Your task to perform on an android device: turn on javascript in the chrome app Image 0: 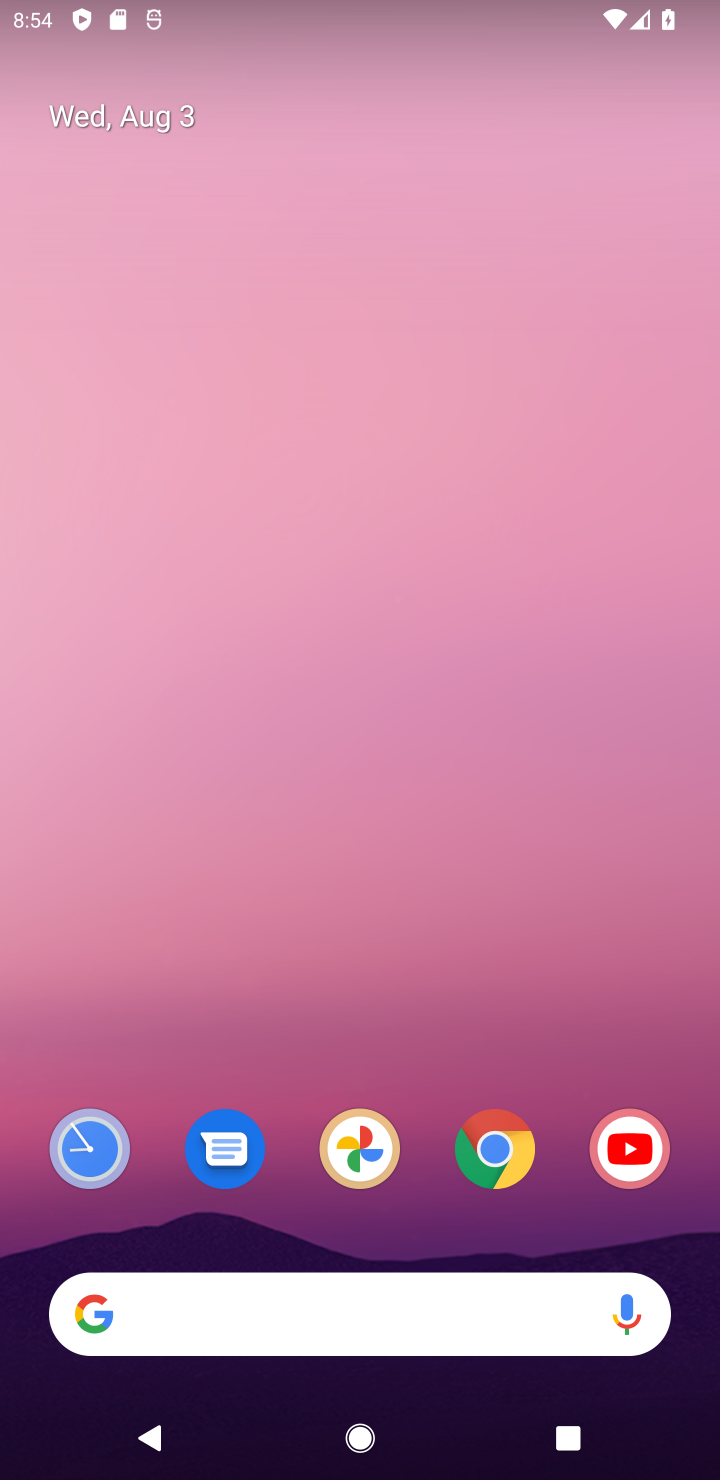
Step 0: click (496, 1137)
Your task to perform on an android device: turn on javascript in the chrome app Image 1: 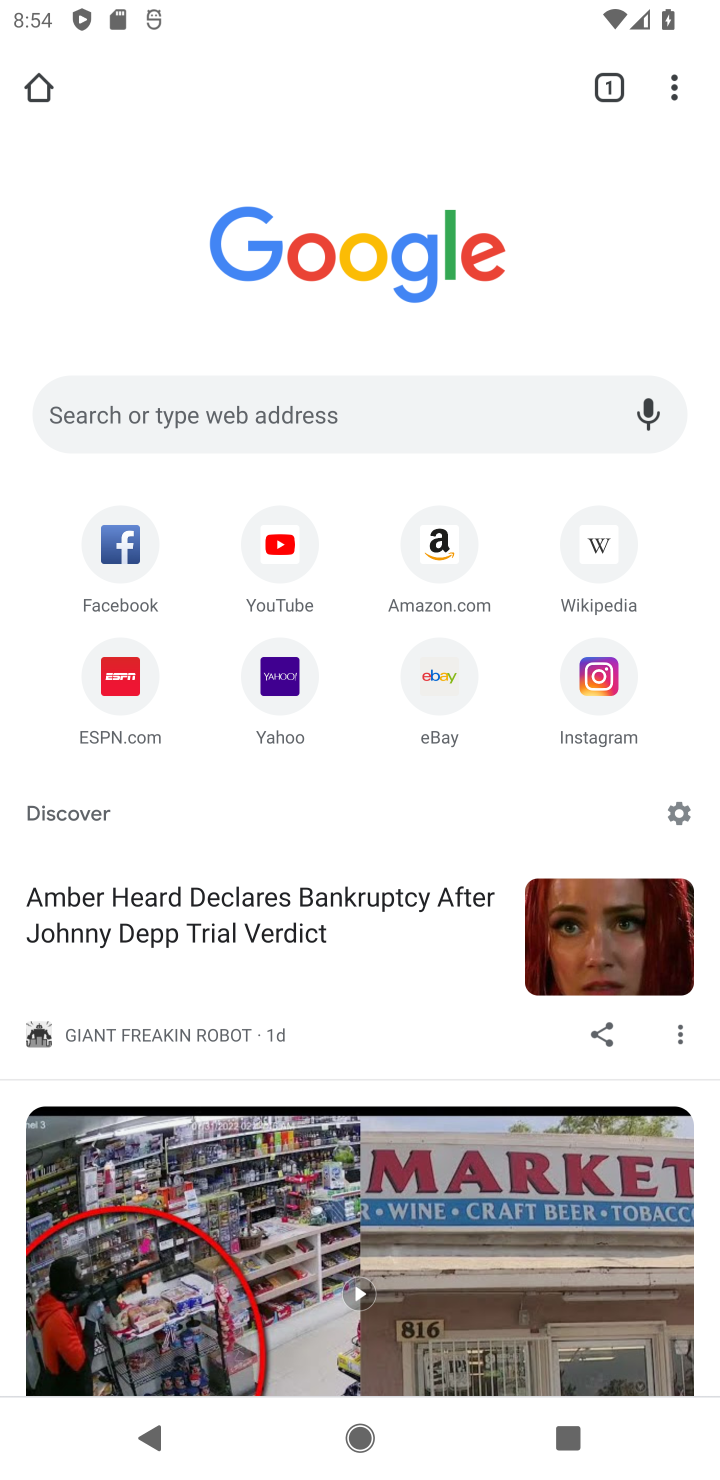
Step 1: click (664, 87)
Your task to perform on an android device: turn on javascript in the chrome app Image 2: 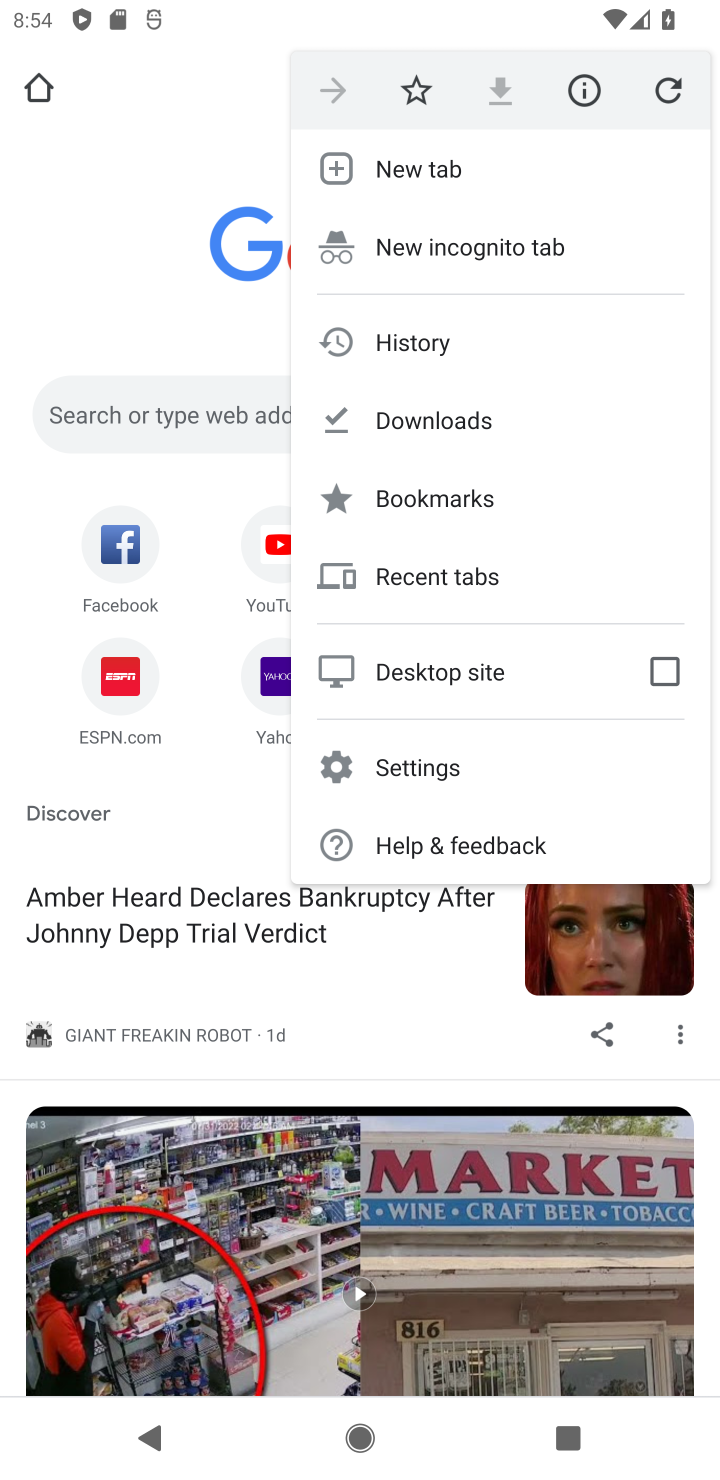
Step 2: click (459, 760)
Your task to perform on an android device: turn on javascript in the chrome app Image 3: 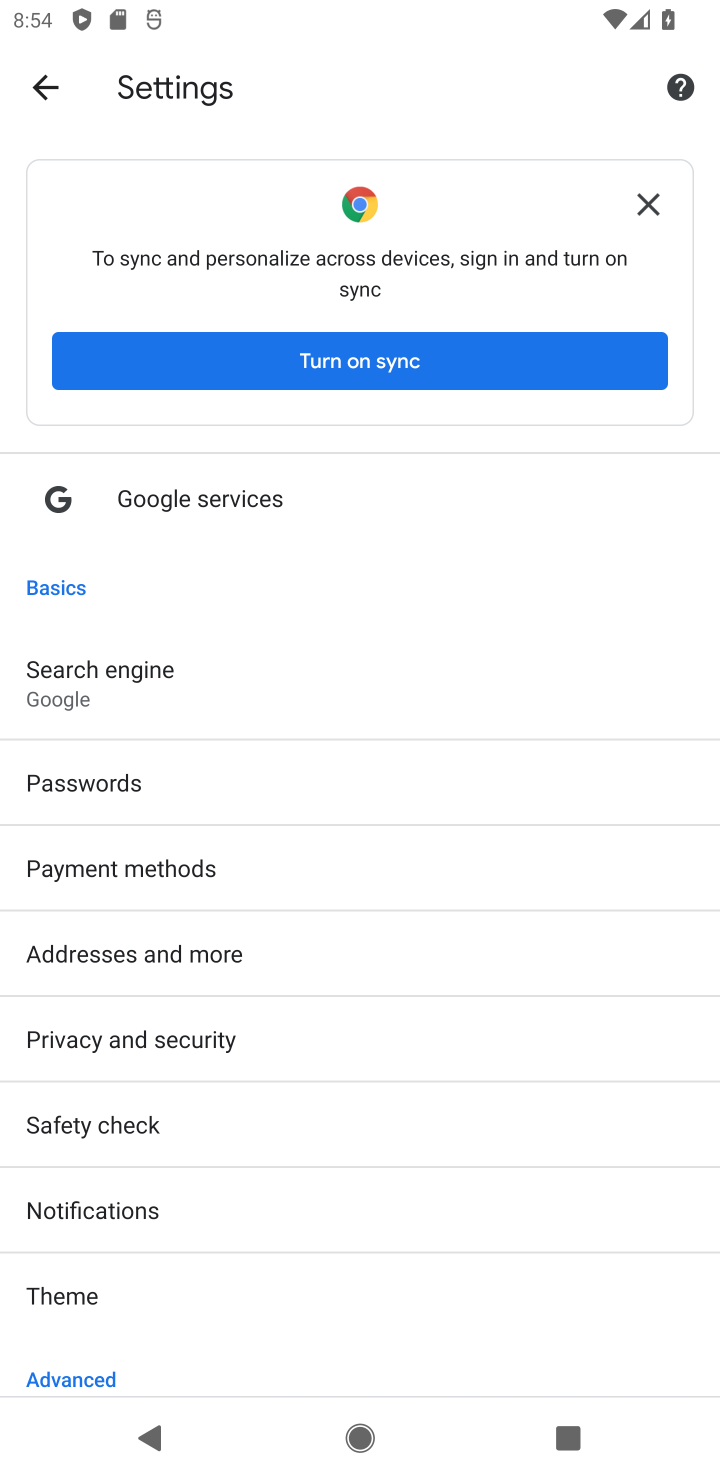
Step 3: drag from (150, 1230) to (54, 45)
Your task to perform on an android device: turn on javascript in the chrome app Image 4: 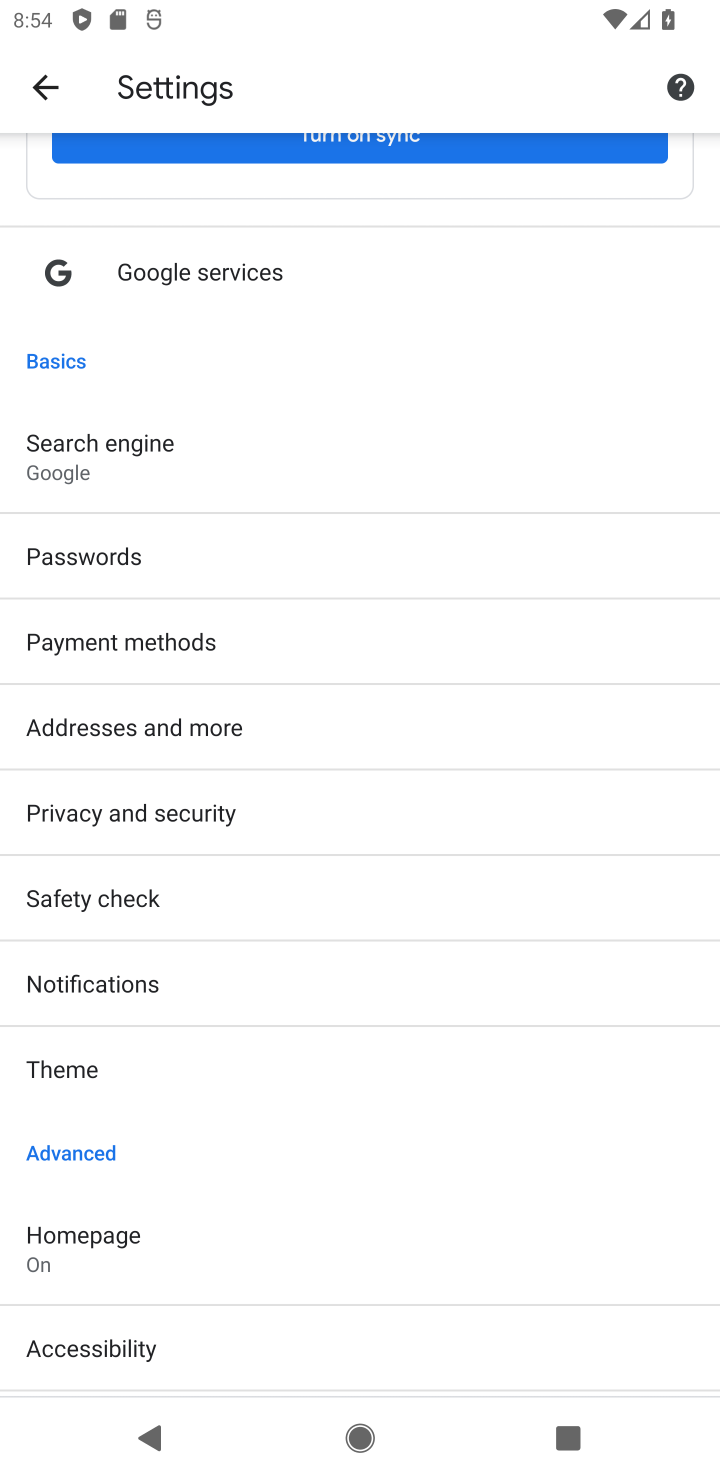
Step 4: drag from (173, 1165) to (128, 80)
Your task to perform on an android device: turn on javascript in the chrome app Image 5: 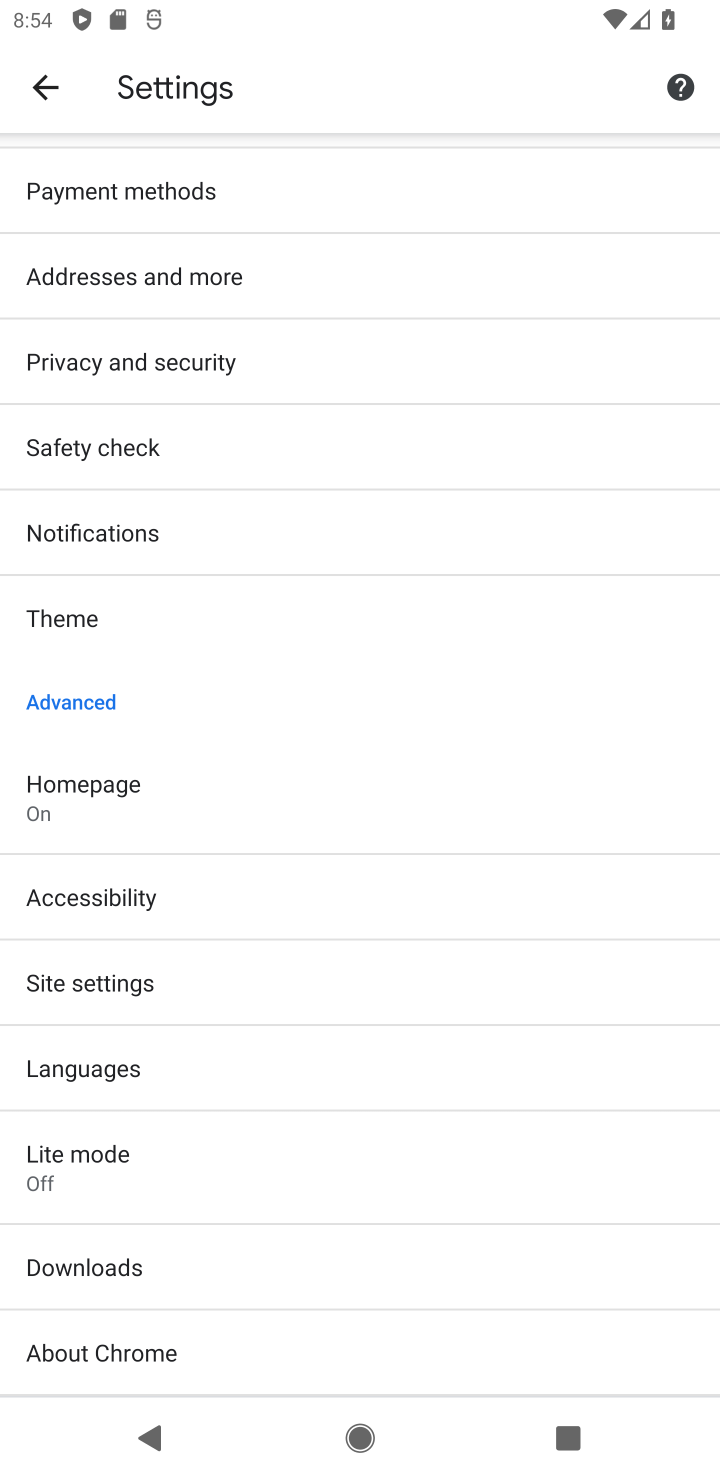
Step 5: click (284, 971)
Your task to perform on an android device: turn on javascript in the chrome app Image 6: 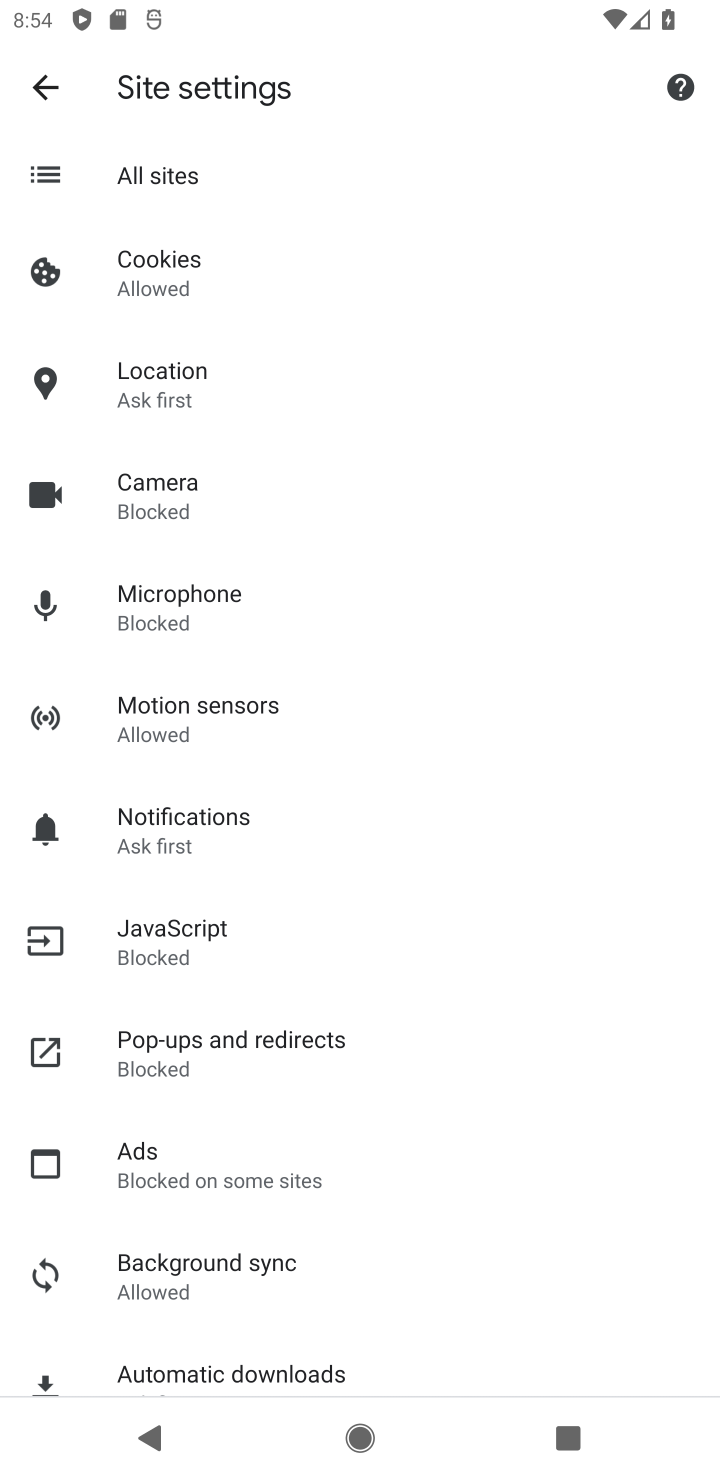
Step 6: click (225, 924)
Your task to perform on an android device: turn on javascript in the chrome app Image 7: 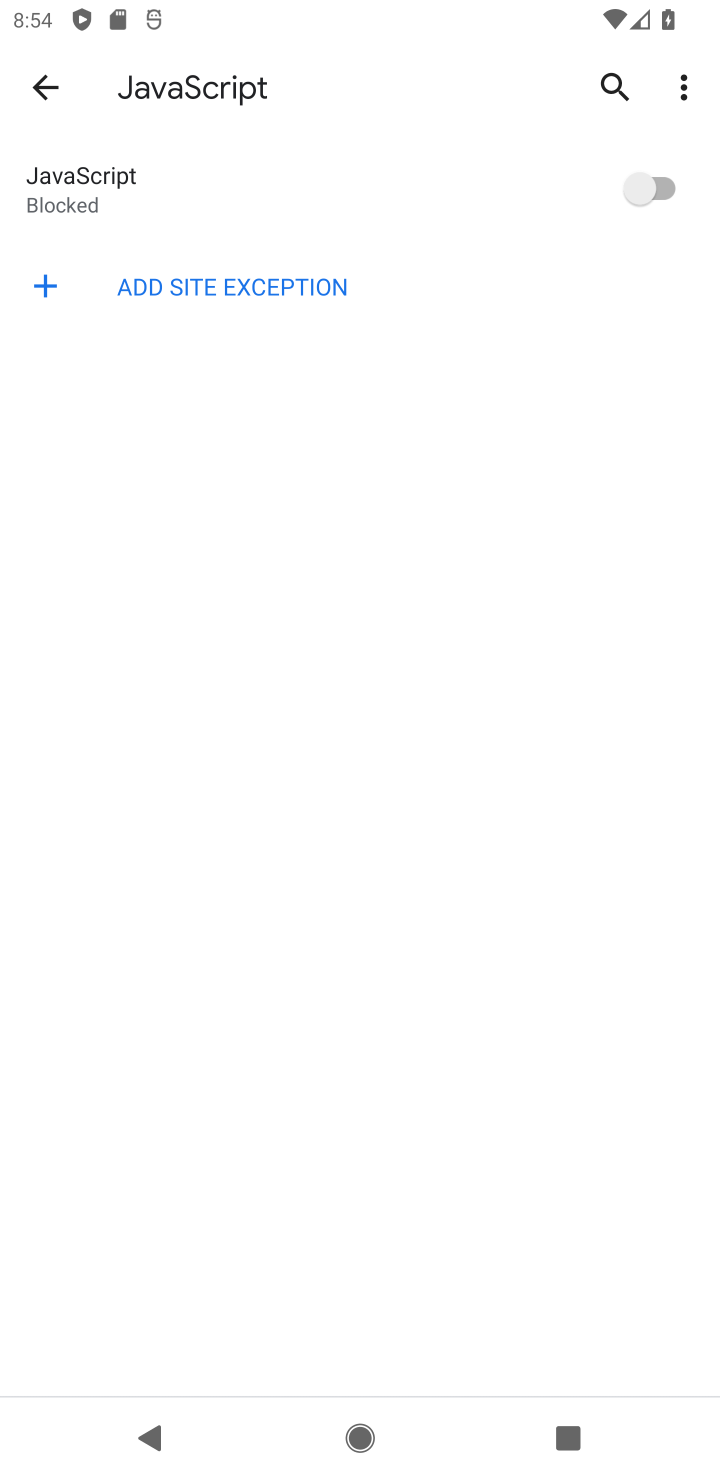
Step 7: click (666, 182)
Your task to perform on an android device: turn on javascript in the chrome app Image 8: 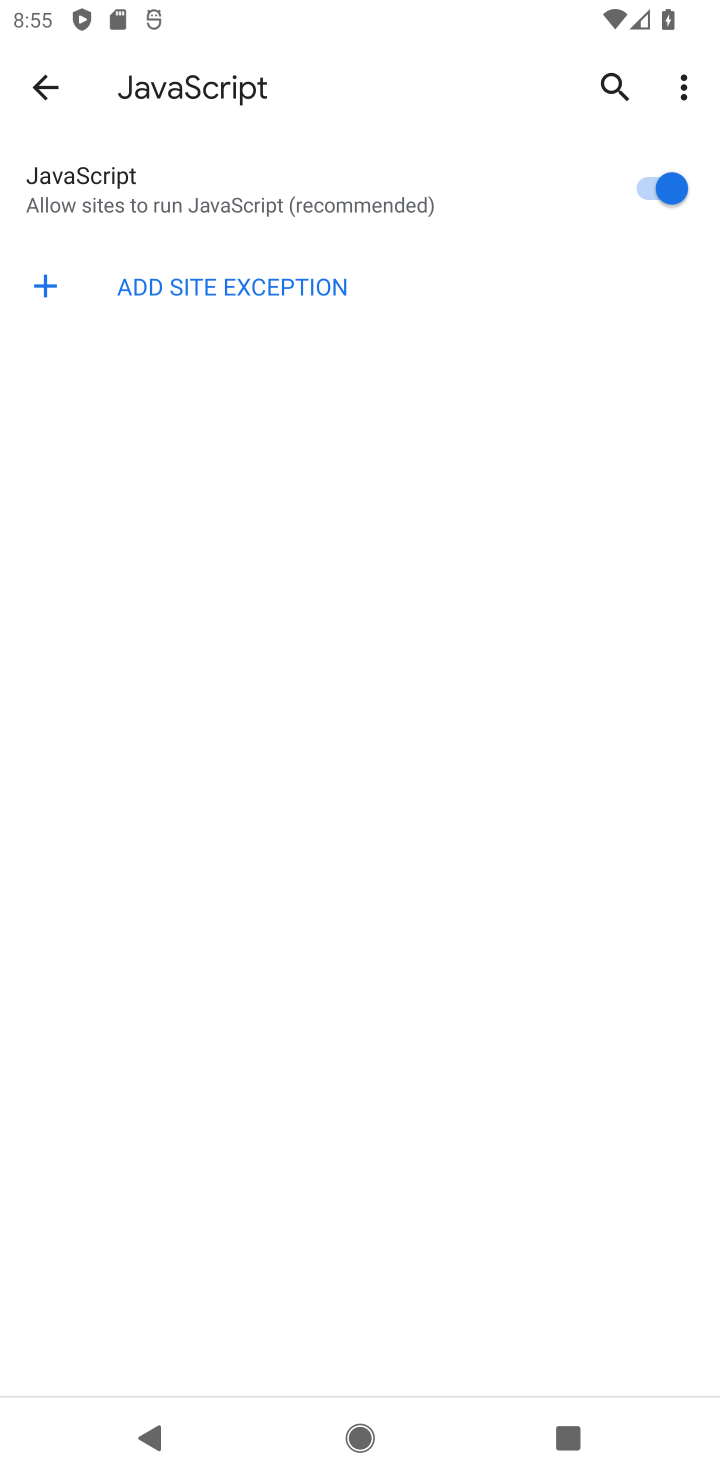
Step 8: task complete